Your task to perform on an android device: delete location history Image 0: 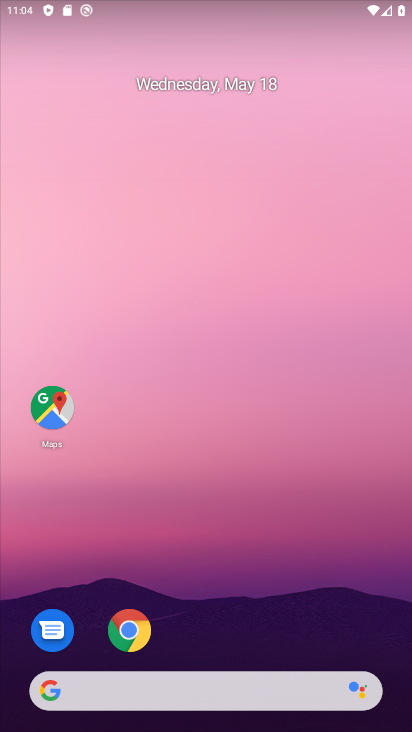
Step 0: drag from (223, 657) to (295, 25)
Your task to perform on an android device: delete location history Image 1: 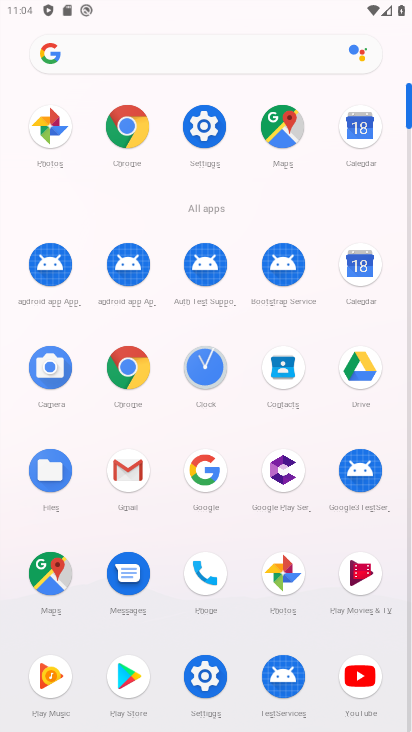
Step 1: click (54, 584)
Your task to perform on an android device: delete location history Image 2: 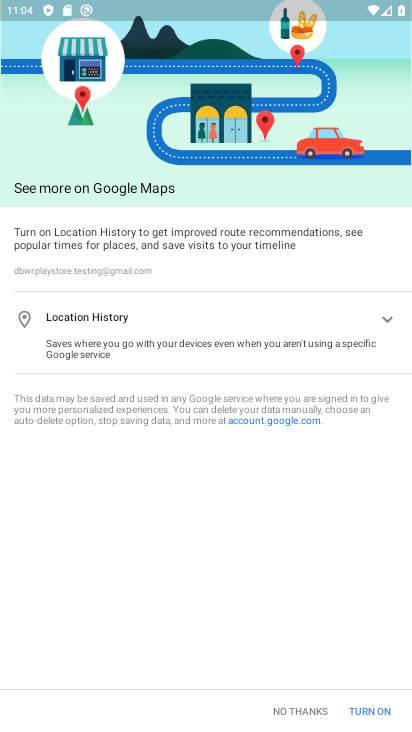
Step 2: click (284, 708)
Your task to perform on an android device: delete location history Image 3: 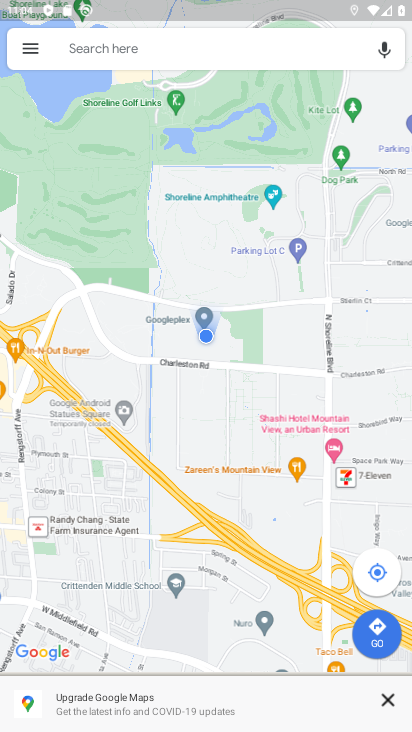
Step 3: click (26, 39)
Your task to perform on an android device: delete location history Image 4: 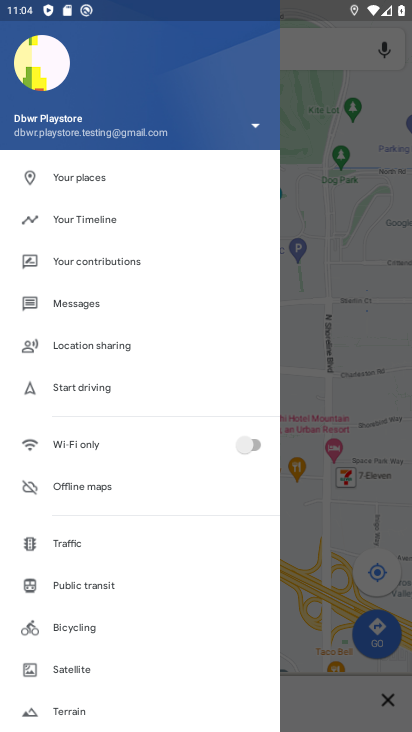
Step 4: click (109, 213)
Your task to perform on an android device: delete location history Image 5: 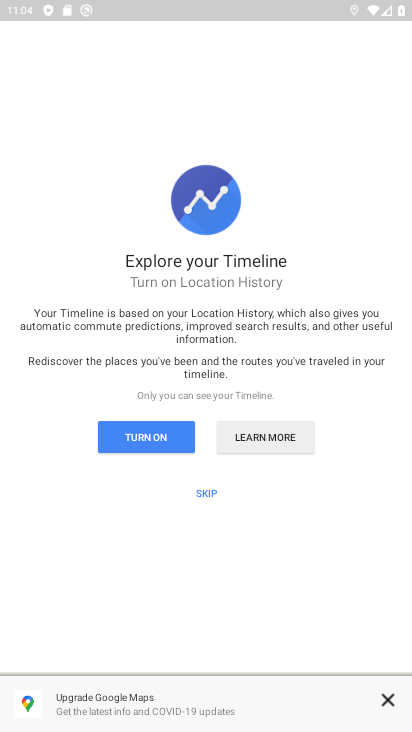
Step 5: click (186, 501)
Your task to perform on an android device: delete location history Image 6: 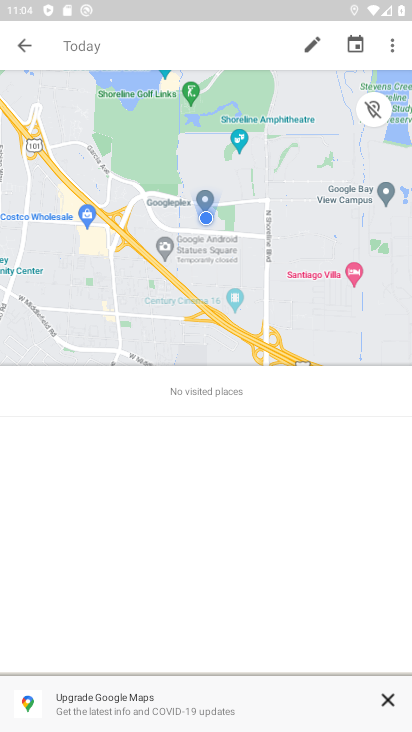
Step 6: click (387, 698)
Your task to perform on an android device: delete location history Image 7: 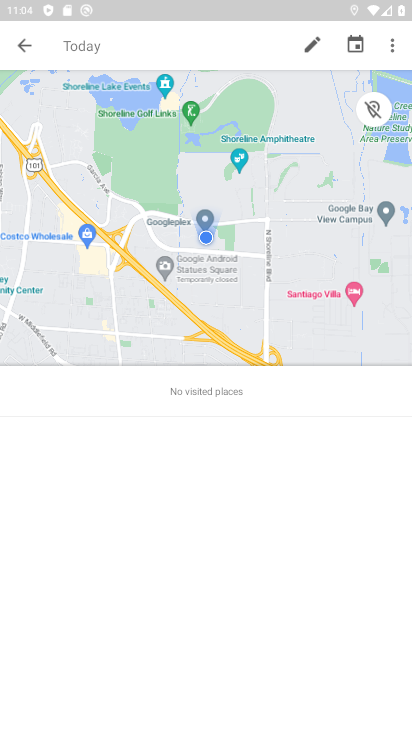
Step 7: click (395, 38)
Your task to perform on an android device: delete location history Image 8: 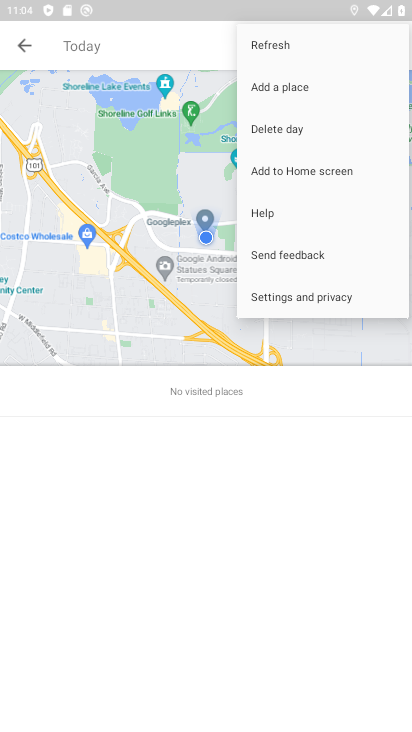
Step 8: click (281, 295)
Your task to perform on an android device: delete location history Image 9: 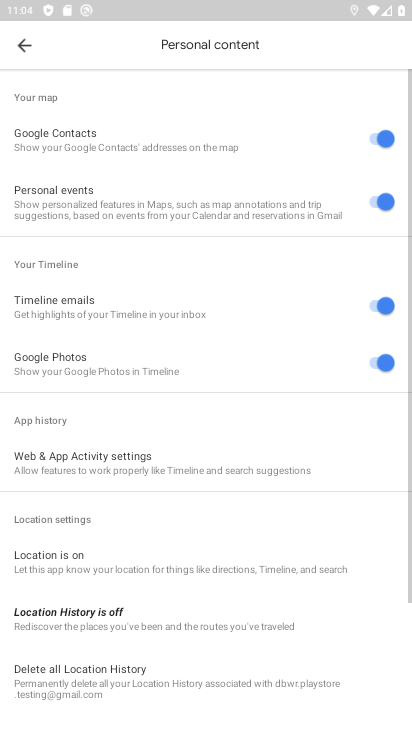
Step 9: drag from (181, 492) to (199, 339)
Your task to perform on an android device: delete location history Image 10: 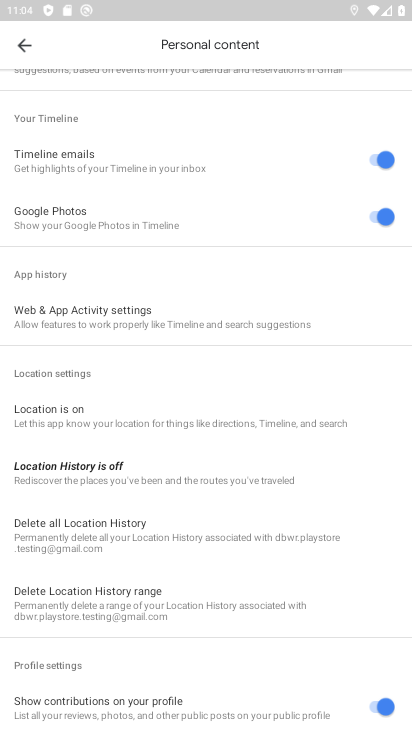
Step 10: click (129, 542)
Your task to perform on an android device: delete location history Image 11: 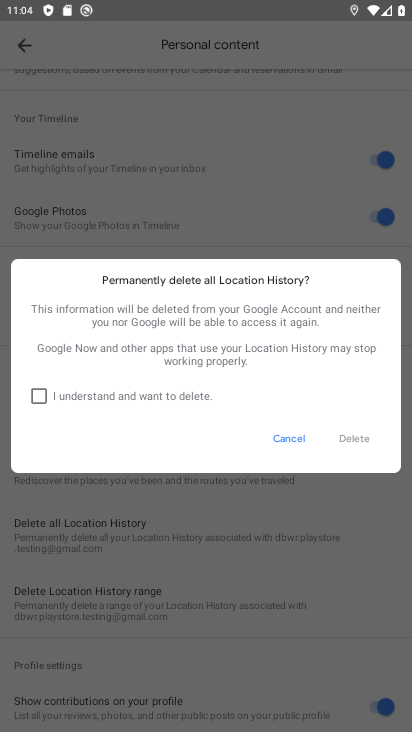
Step 11: click (110, 398)
Your task to perform on an android device: delete location history Image 12: 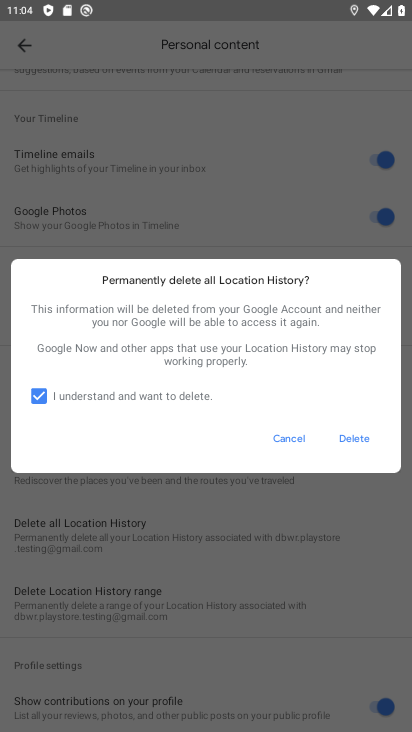
Step 12: click (346, 437)
Your task to perform on an android device: delete location history Image 13: 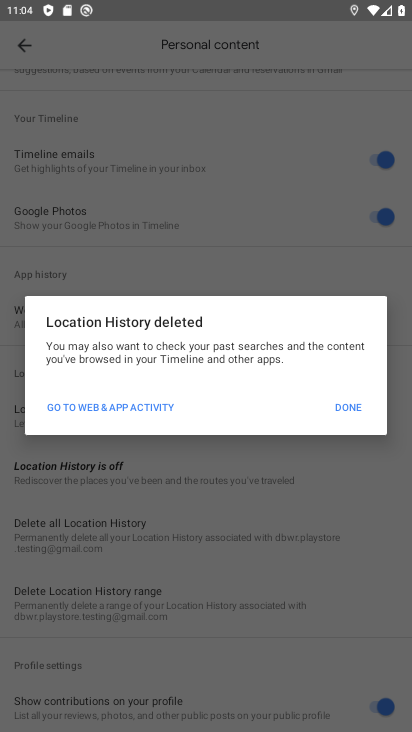
Step 13: click (340, 414)
Your task to perform on an android device: delete location history Image 14: 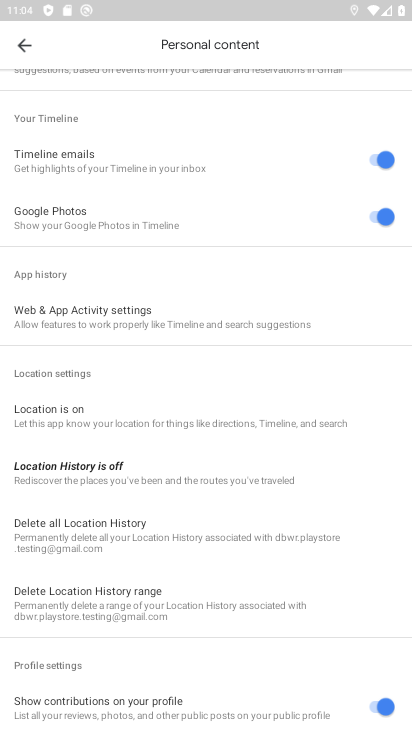
Step 14: task complete